Your task to perform on an android device: What is the capital of Brazil? Image 0: 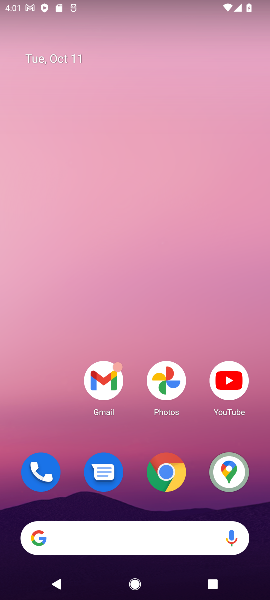
Step 0: click (140, 527)
Your task to perform on an android device: What is the capital of Brazil? Image 1: 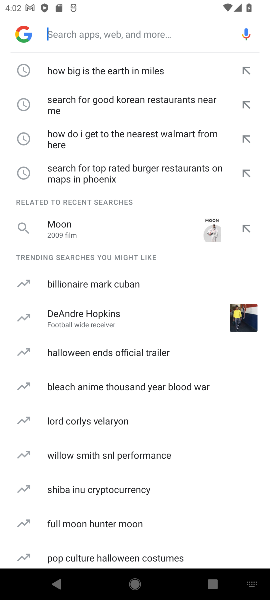
Step 1: type "What is the capital of Brazil?"
Your task to perform on an android device: What is the capital of Brazil? Image 2: 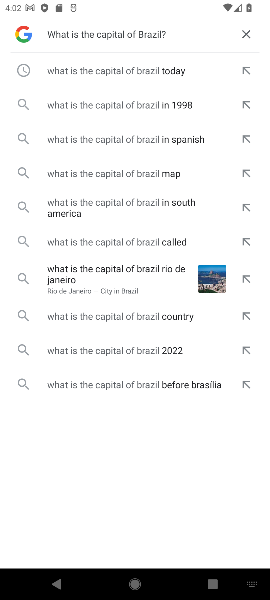
Step 2: click (145, 71)
Your task to perform on an android device: What is the capital of Brazil? Image 3: 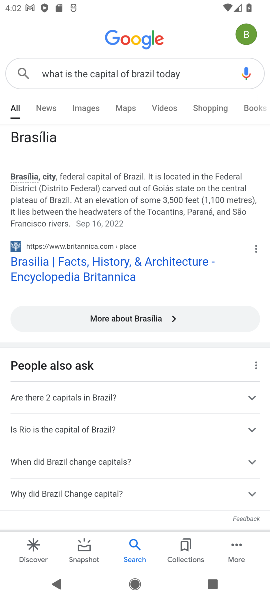
Step 3: task complete